Your task to perform on an android device: Go to Yahoo.com Image 0: 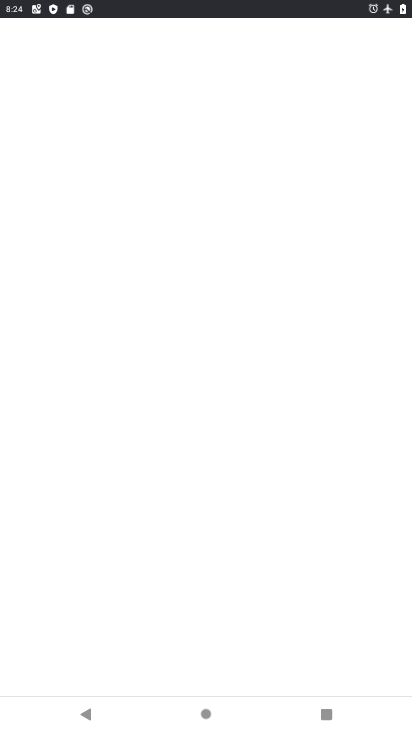
Step 0: drag from (227, 706) to (227, 64)
Your task to perform on an android device: Go to Yahoo.com Image 1: 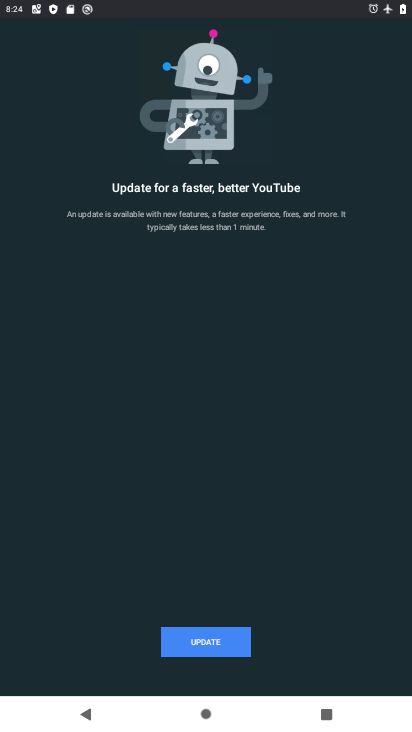
Step 1: press home button
Your task to perform on an android device: Go to Yahoo.com Image 2: 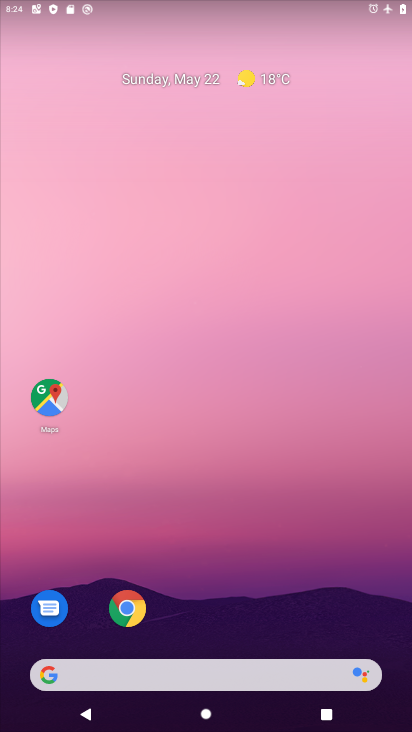
Step 2: click (129, 610)
Your task to perform on an android device: Go to Yahoo.com Image 3: 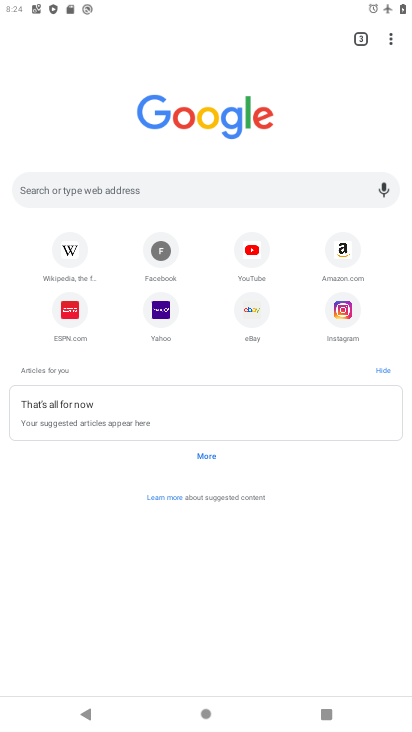
Step 3: click (160, 309)
Your task to perform on an android device: Go to Yahoo.com Image 4: 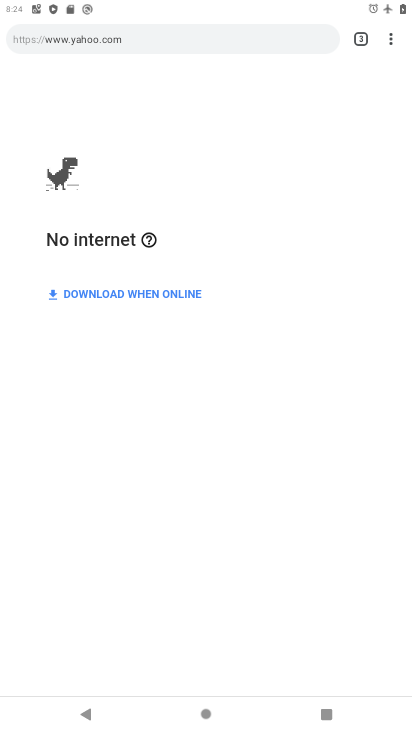
Step 4: task complete